Your task to perform on an android device: Go to Google maps Image 0: 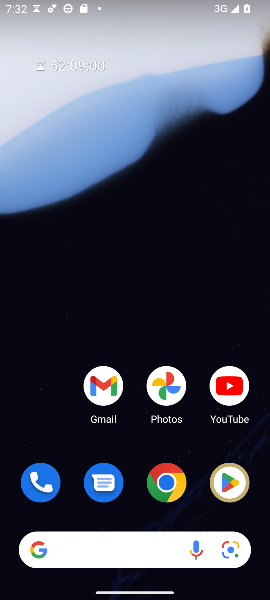
Step 0: drag from (85, 522) to (178, 42)
Your task to perform on an android device: Go to Google maps Image 1: 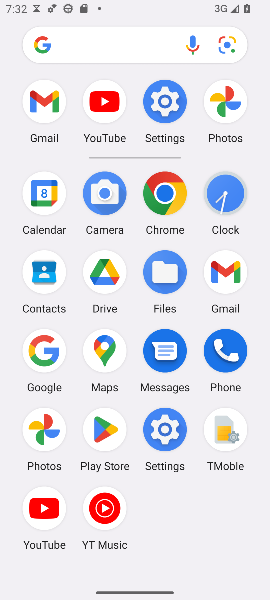
Step 1: click (100, 354)
Your task to perform on an android device: Go to Google maps Image 2: 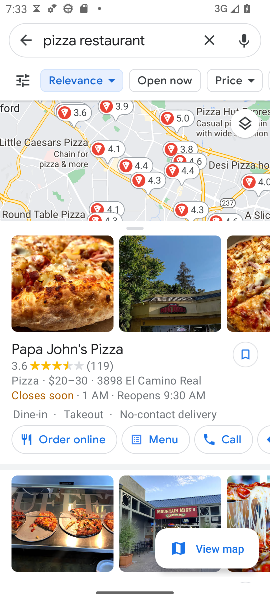
Step 2: task complete